Your task to perform on an android device: empty trash in the gmail app Image 0: 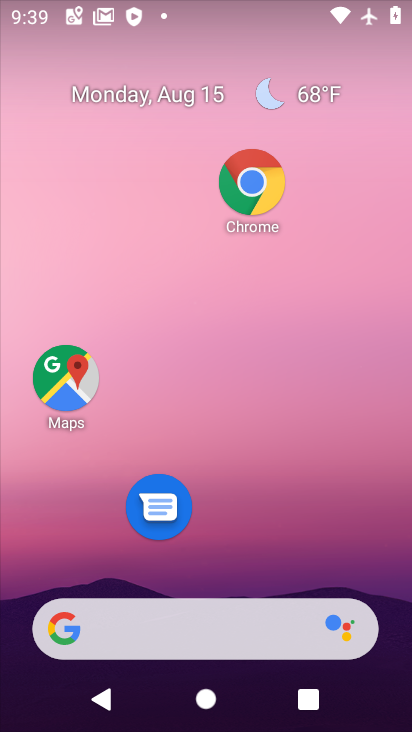
Step 0: drag from (364, 566) to (363, 29)
Your task to perform on an android device: empty trash in the gmail app Image 1: 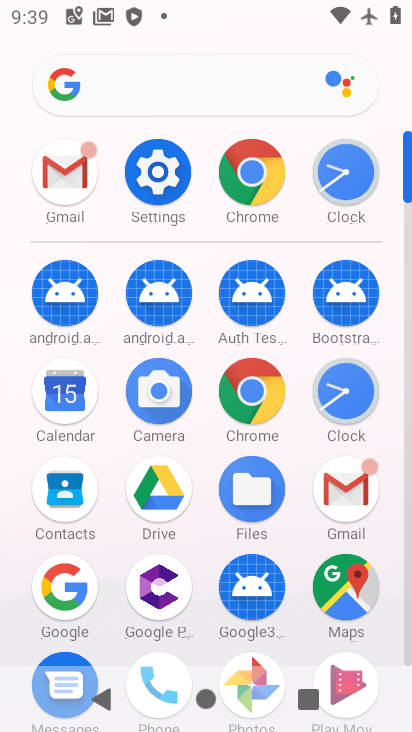
Step 1: click (97, 164)
Your task to perform on an android device: empty trash in the gmail app Image 2: 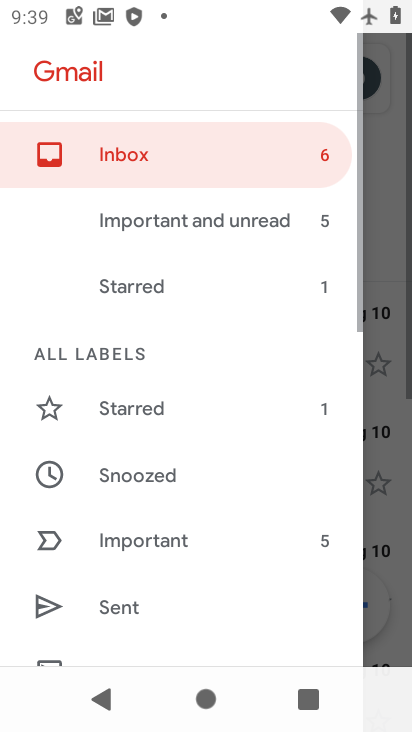
Step 2: task complete